Your task to perform on an android device: turn on the 24-hour format for clock Image 0: 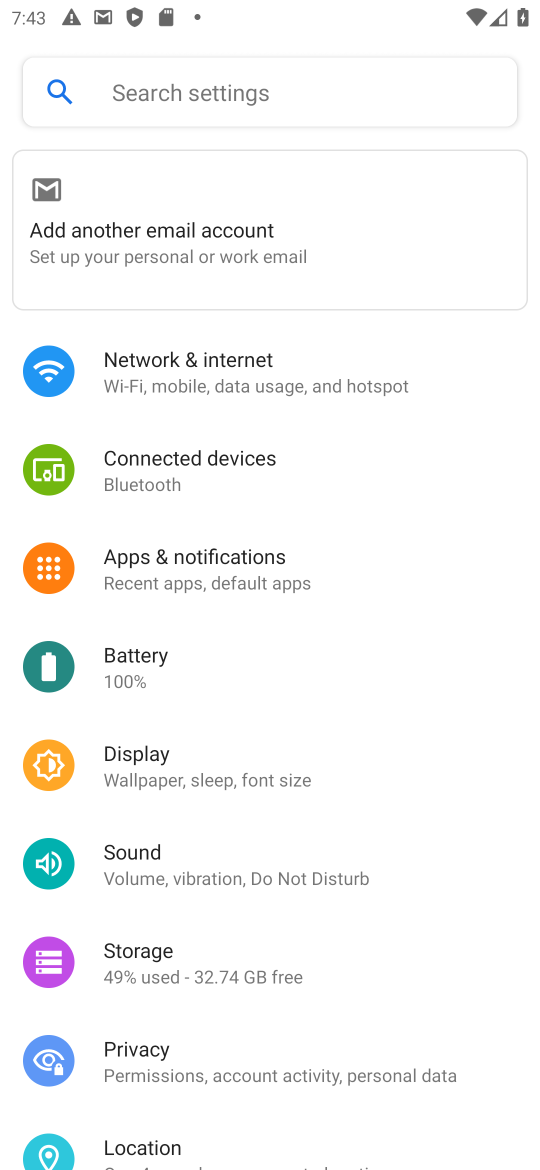
Step 0: press home button
Your task to perform on an android device: turn on the 24-hour format for clock Image 1: 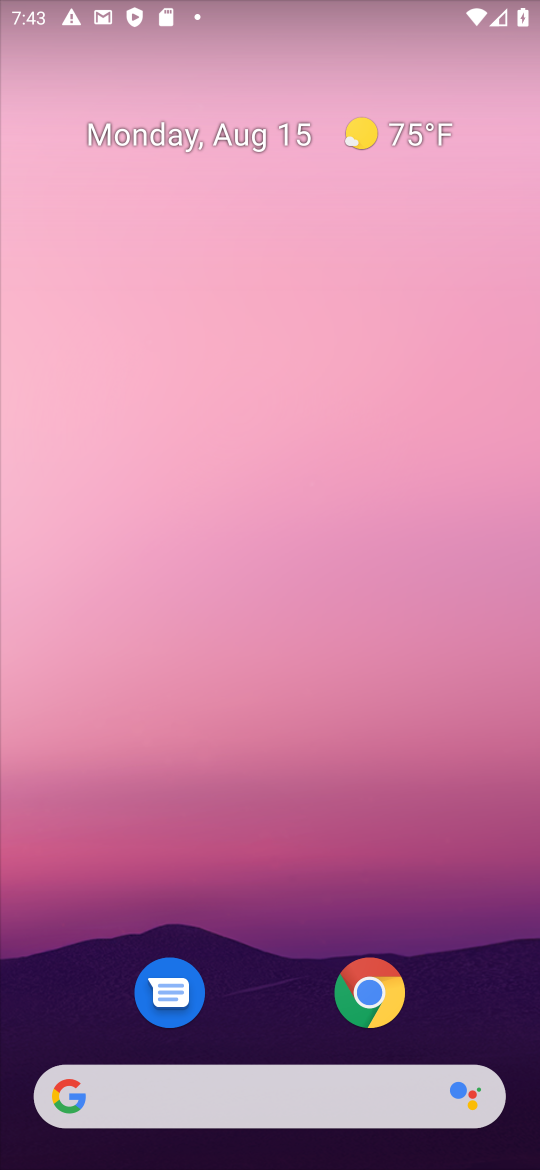
Step 1: drag from (253, 1091) to (316, 275)
Your task to perform on an android device: turn on the 24-hour format for clock Image 2: 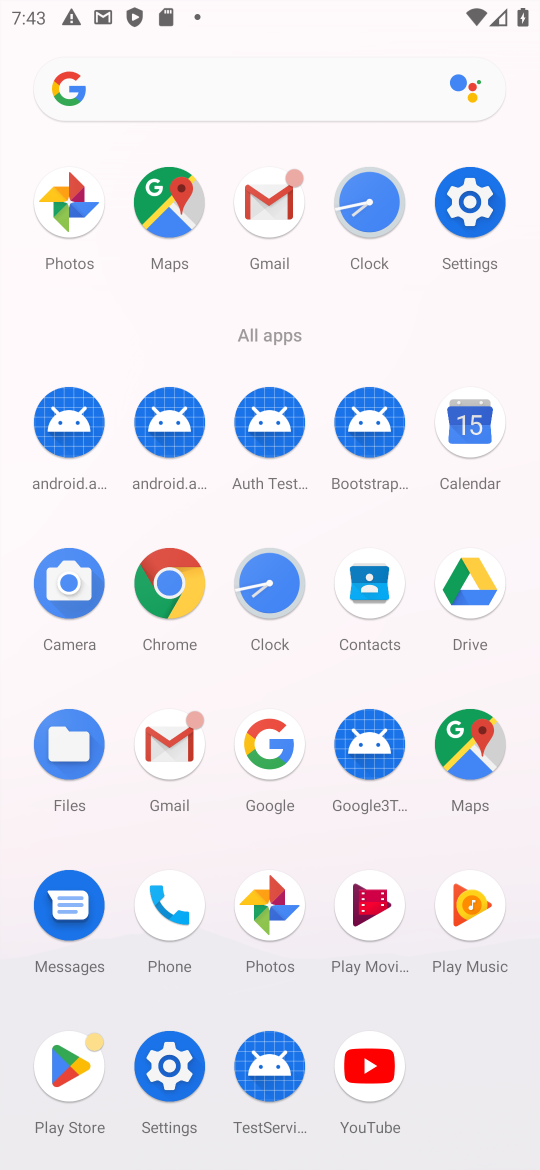
Step 2: click (269, 602)
Your task to perform on an android device: turn on the 24-hour format for clock Image 3: 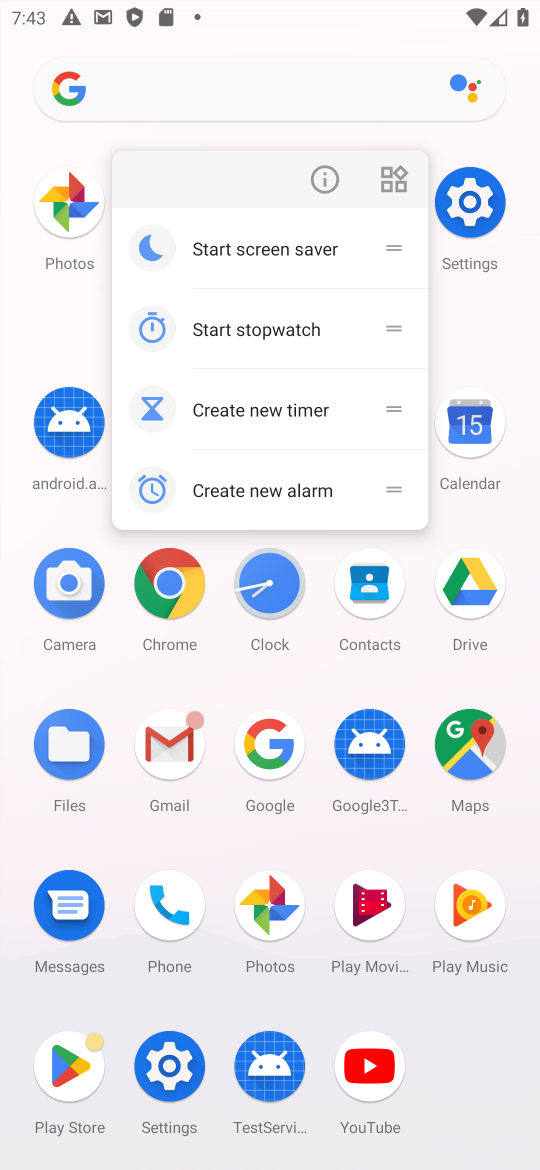
Step 3: click (265, 579)
Your task to perform on an android device: turn on the 24-hour format for clock Image 4: 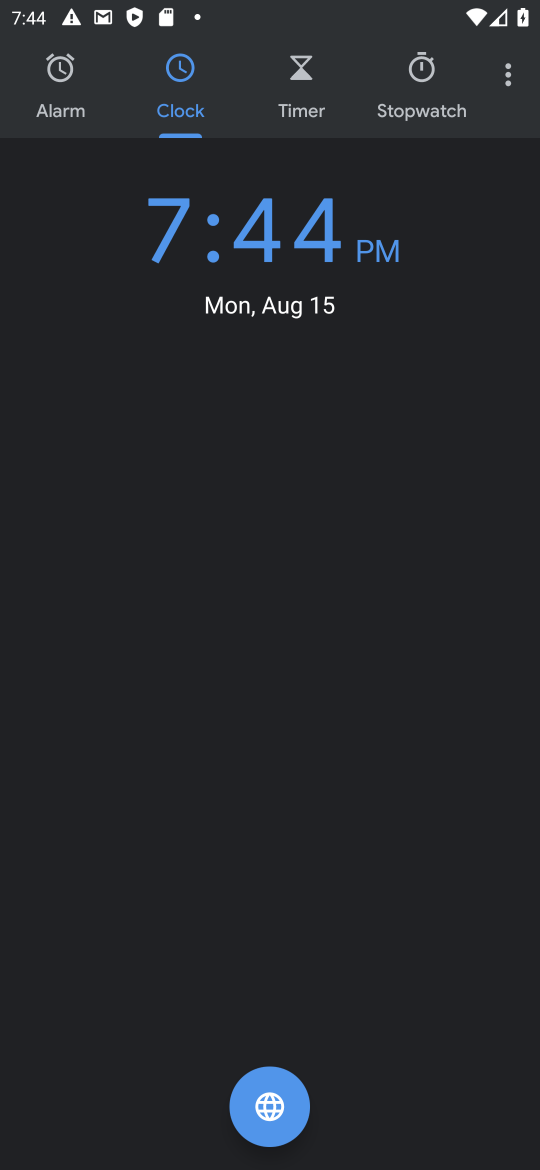
Step 4: click (516, 73)
Your task to perform on an android device: turn on the 24-hour format for clock Image 5: 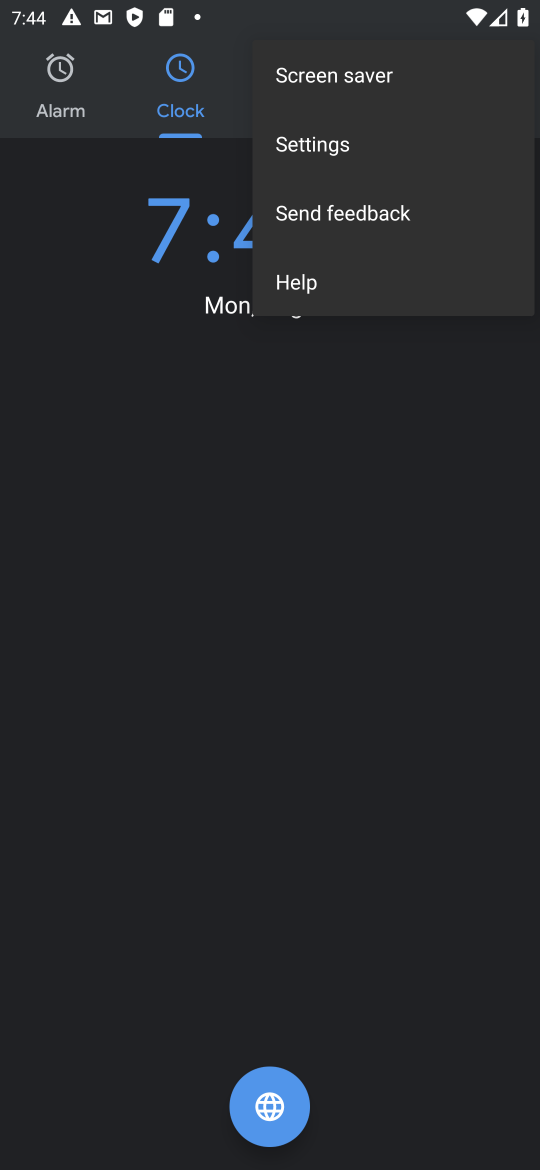
Step 5: click (398, 150)
Your task to perform on an android device: turn on the 24-hour format for clock Image 6: 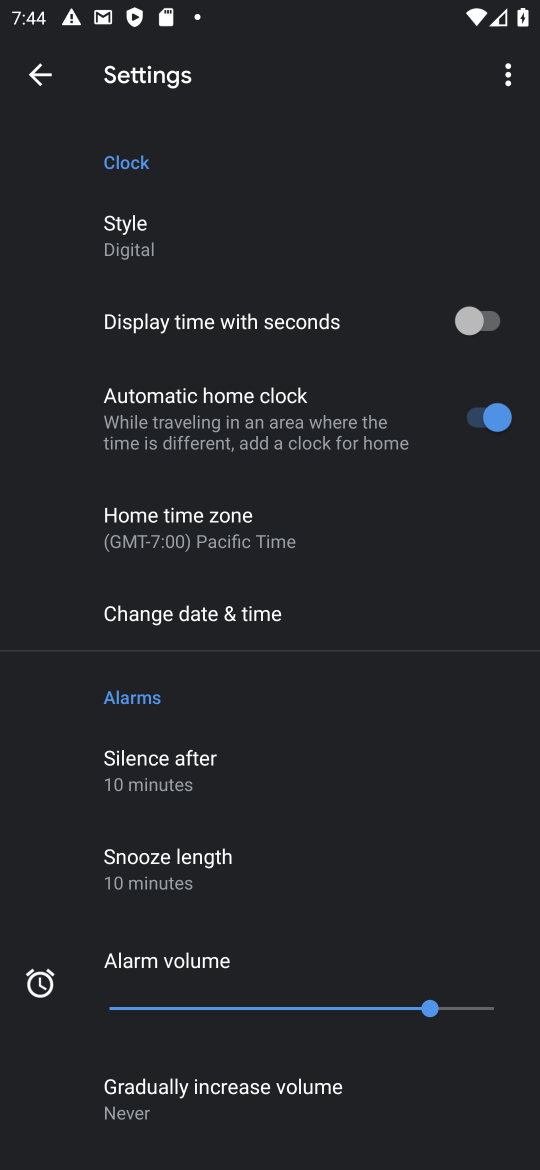
Step 6: click (148, 619)
Your task to perform on an android device: turn on the 24-hour format for clock Image 7: 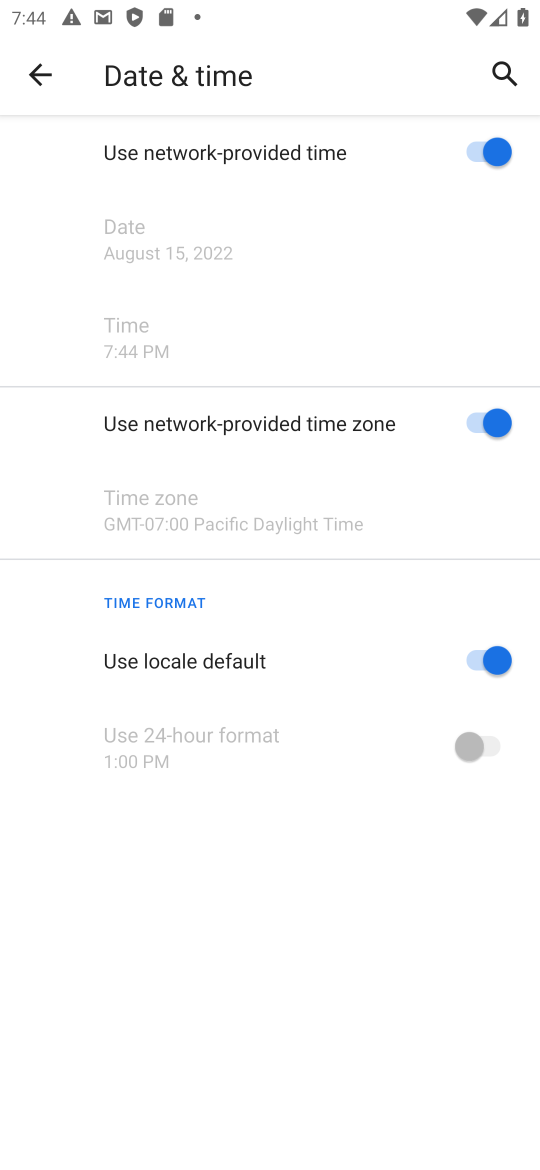
Step 7: click (472, 652)
Your task to perform on an android device: turn on the 24-hour format for clock Image 8: 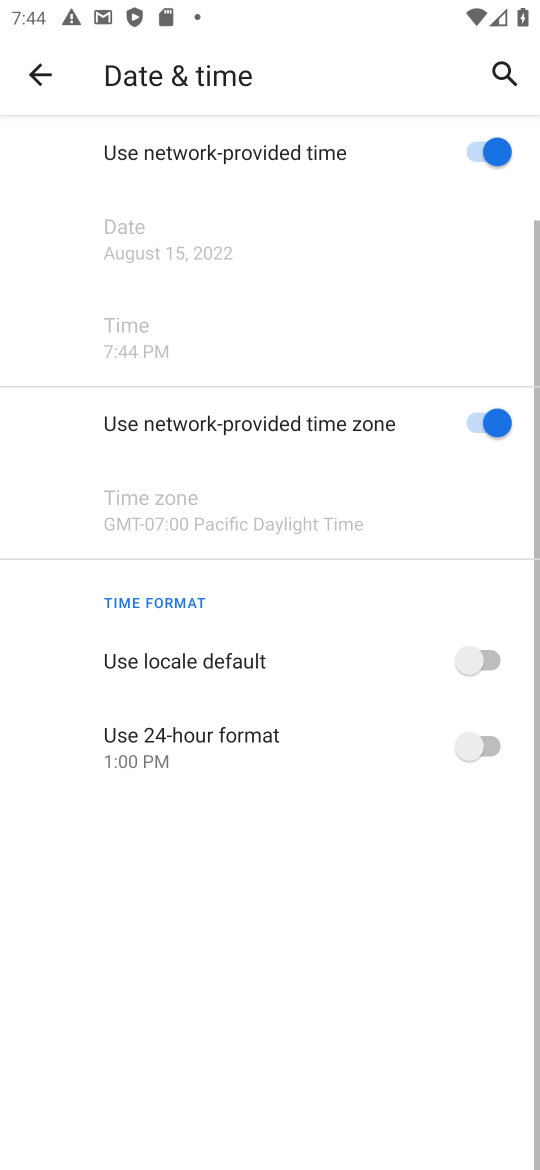
Step 8: click (495, 745)
Your task to perform on an android device: turn on the 24-hour format for clock Image 9: 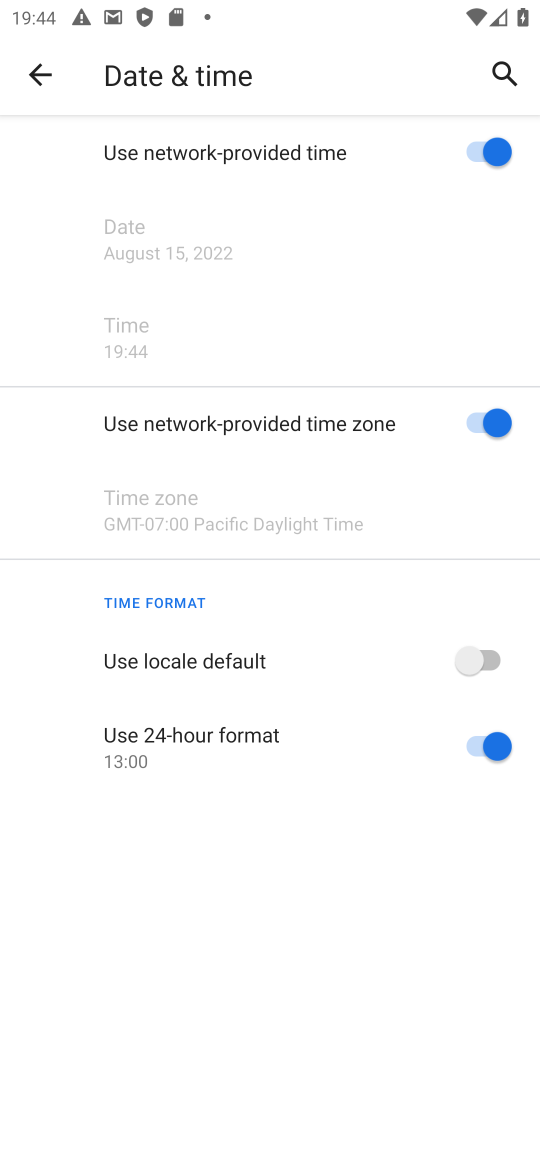
Step 9: task complete